Your task to perform on an android device: Open privacy settings Image 0: 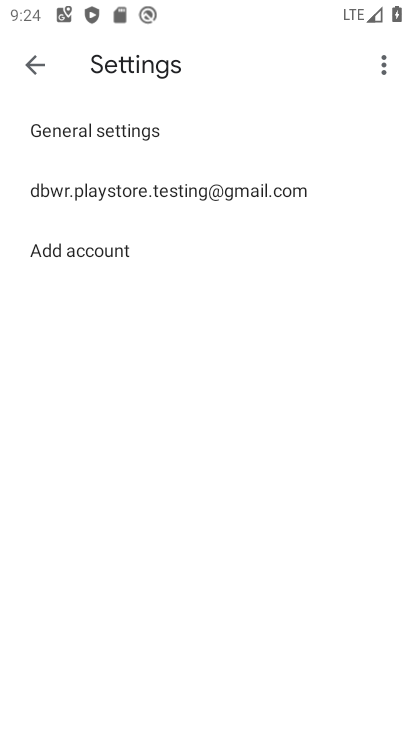
Step 0: press home button
Your task to perform on an android device: Open privacy settings Image 1: 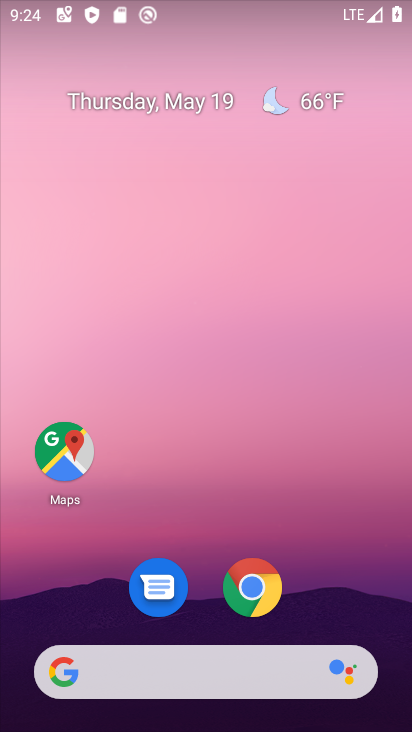
Step 1: drag from (288, 696) to (122, 163)
Your task to perform on an android device: Open privacy settings Image 2: 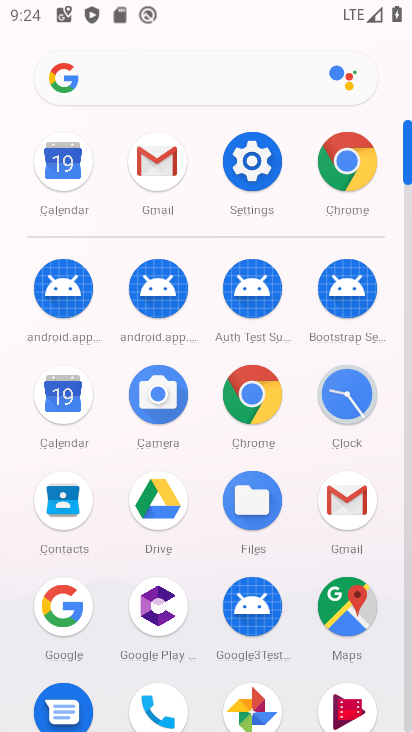
Step 2: click (238, 195)
Your task to perform on an android device: Open privacy settings Image 3: 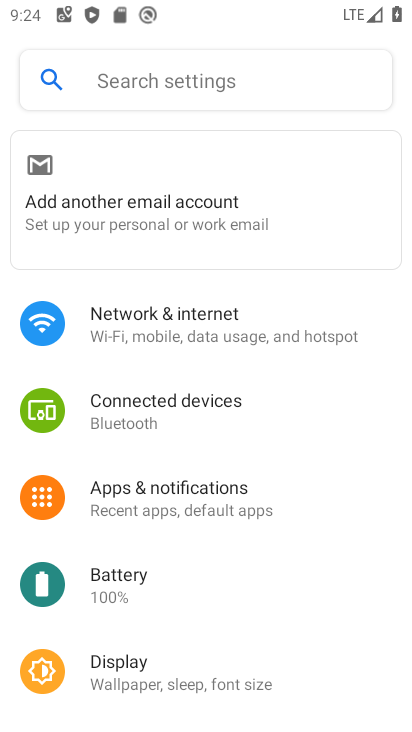
Step 3: drag from (218, 610) to (222, 202)
Your task to perform on an android device: Open privacy settings Image 4: 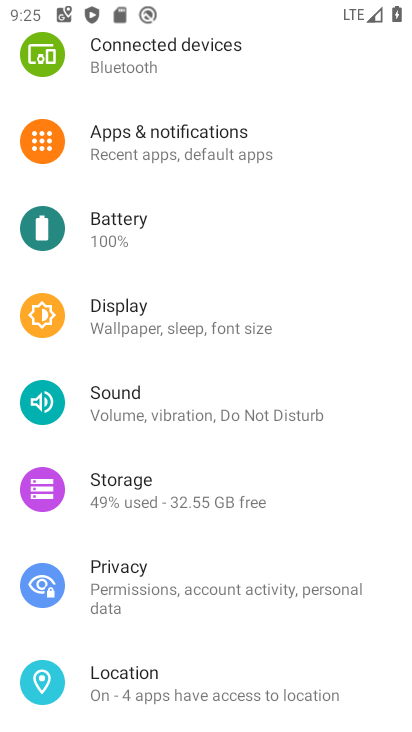
Step 4: click (150, 584)
Your task to perform on an android device: Open privacy settings Image 5: 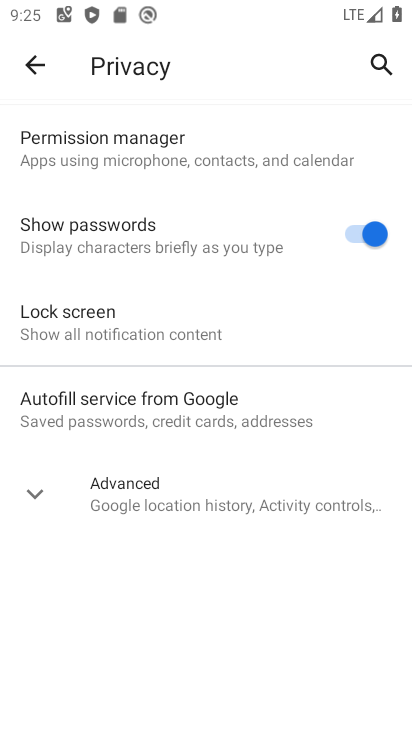
Step 5: task complete